Your task to perform on an android device: check storage Image 0: 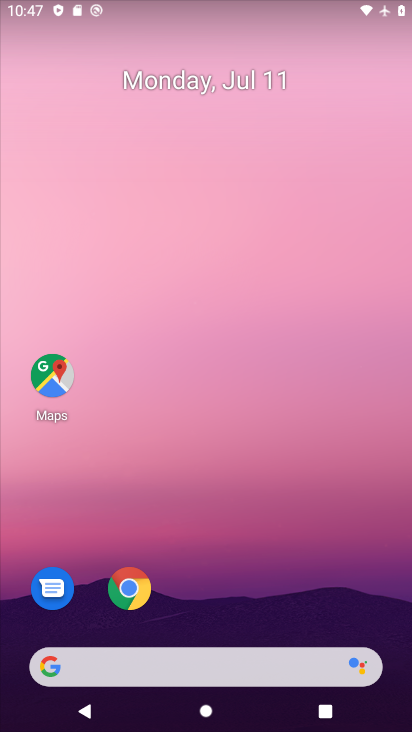
Step 0: drag from (163, 637) to (314, 80)
Your task to perform on an android device: check storage Image 1: 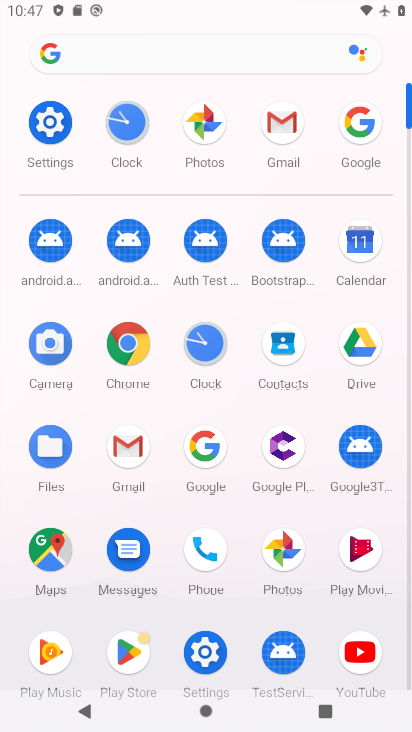
Step 1: click (49, 135)
Your task to perform on an android device: check storage Image 2: 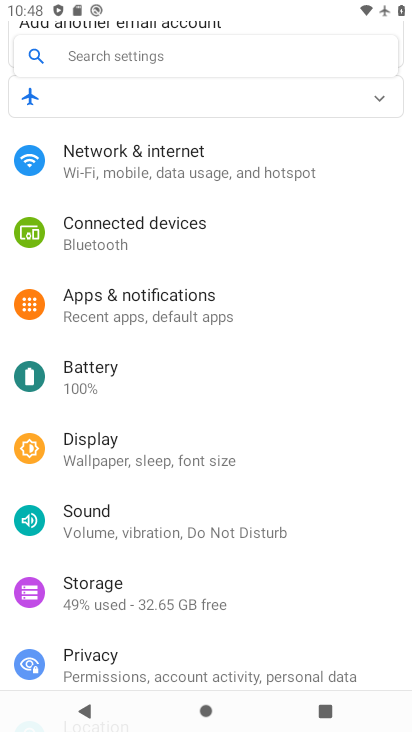
Step 2: click (162, 169)
Your task to perform on an android device: check storage Image 3: 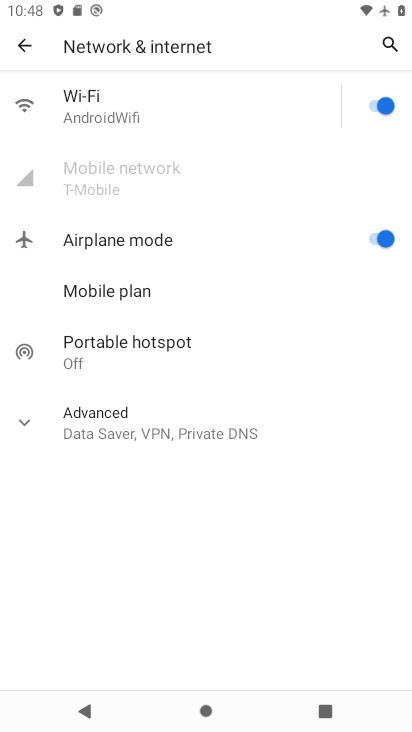
Step 3: click (26, 52)
Your task to perform on an android device: check storage Image 4: 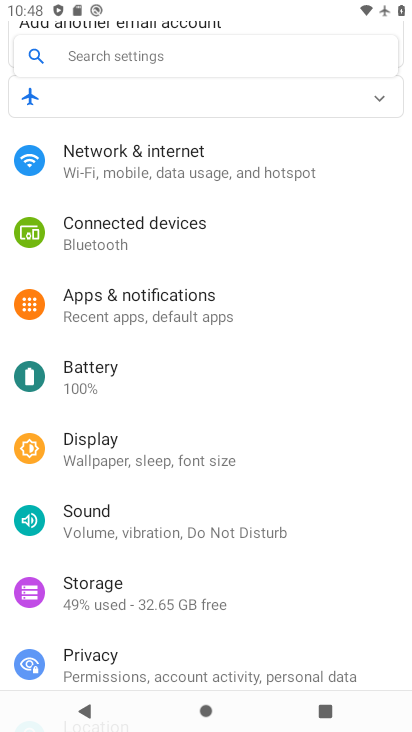
Step 4: click (124, 588)
Your task to perform on an android device: check storage Image 5: 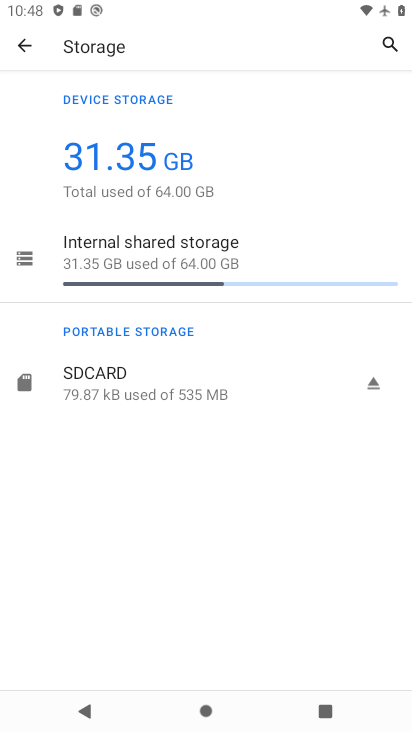
Step 5: task complete